Your task to perform on an android device: Open the stopwatch Image 0: 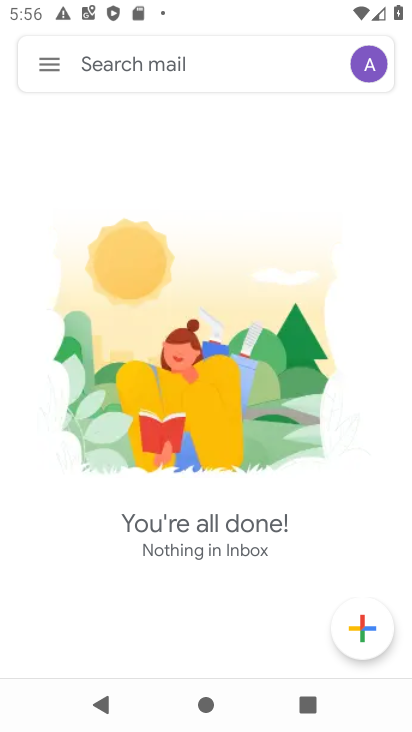
Step 0: press home button
Your task to perform on an android device: Open the stopwatch Image 1: 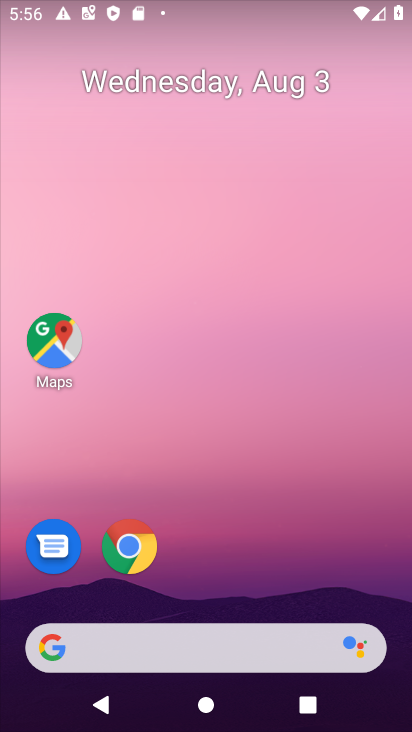
Step 1: drag from (270, 617) to (301, 99)
Your task to perform on an android device: Open the stopwatch Image 2: 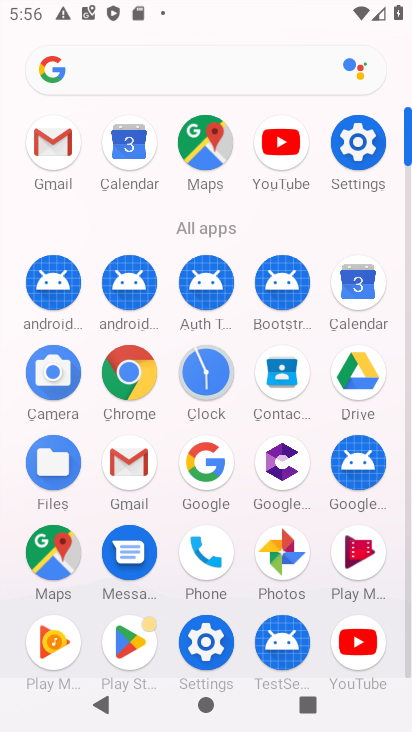
Step 2: click (192, 371)
Your task to perform on an android device: Open the stopwatch Image 3: 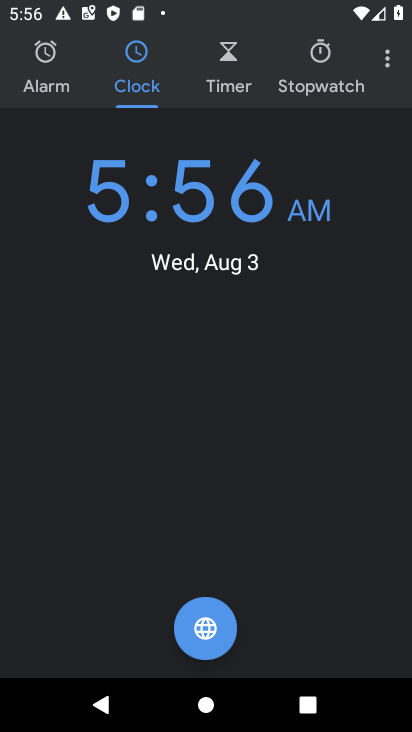
Step 3: click (321, 56)
Your task to perform on an android device: Open the stopwatch Image 4: 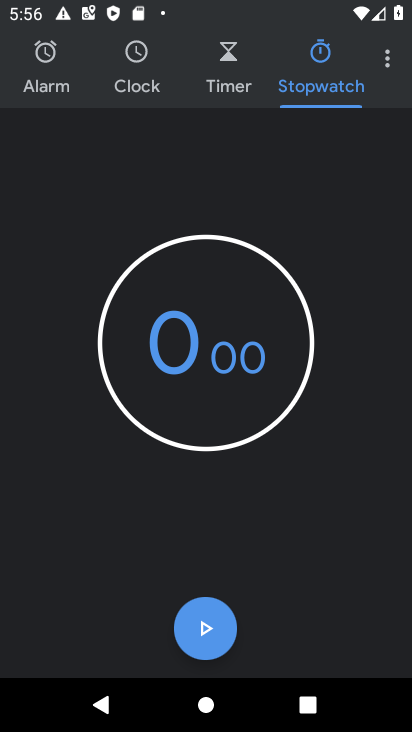
Step 4: task complete